Your task to perform on an android device: turn on showing notifications on the lock screen Image 0: 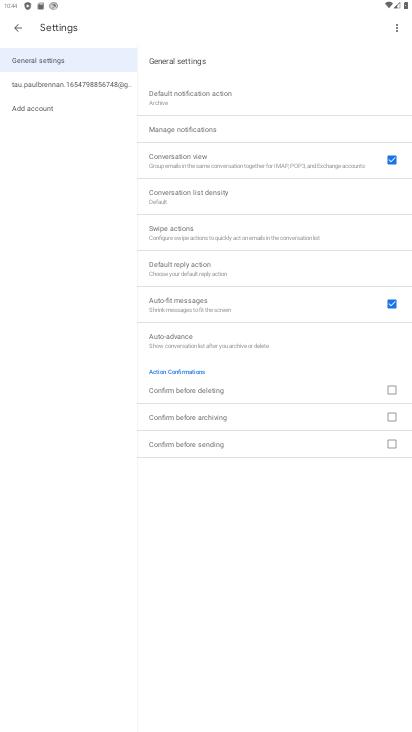
Step 0: press home button
Your task to perform on an android device: turn on showing notifications on the lock screen Image 1: 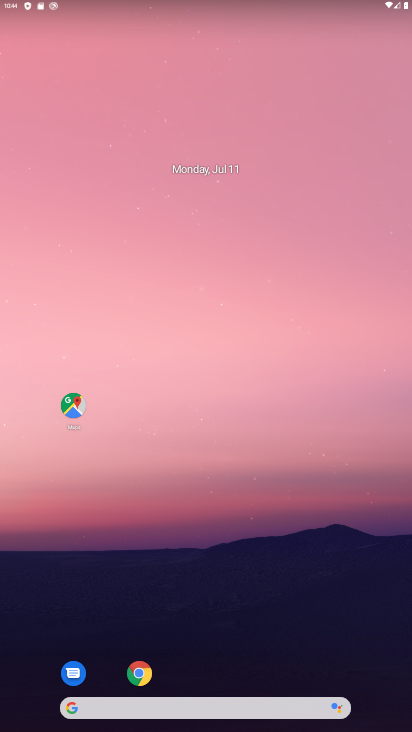
Step 1: drag from (192, 683) to (238, 268)
Your task to perform on an android device: turn on showing notifications on the lock screen Image 2: 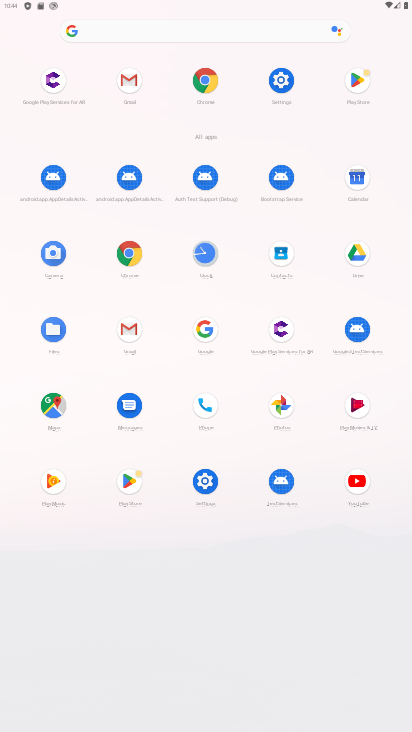
Step 2: click (205, 489)
Your task to perform on an android device: turn on showing notifications on the lock screen Image 3: 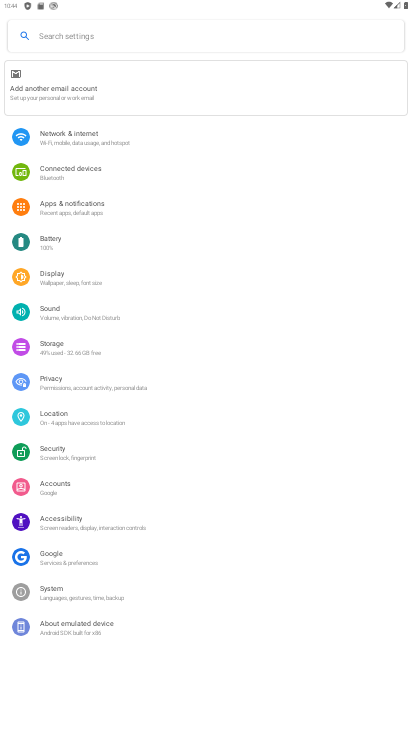
Step 3: click (108, 217)
Your task to perform on an android device: turn on showing notifications on the lock screen Image 4: 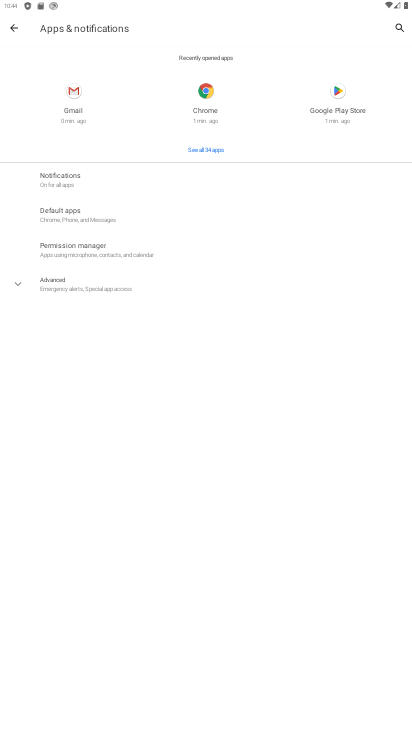
Step 4: click (105, 179)
Your task to perform on an android device: turn on showing notifications on the lock screen Image 5: 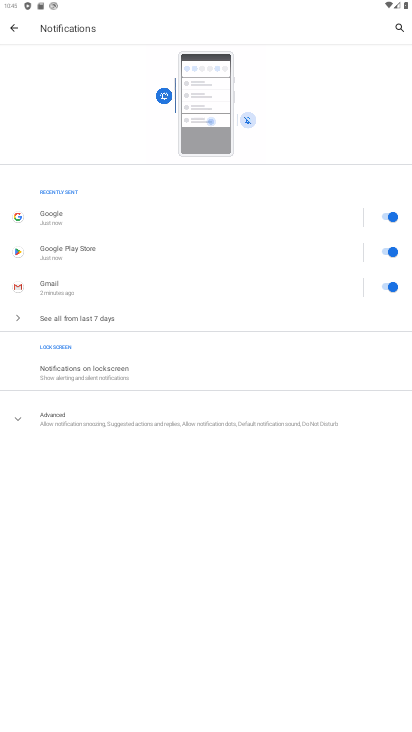
Step 5: click (115, 377)
Your task to perform on an android device: turn on showing notifications on the lock screen Image 6: 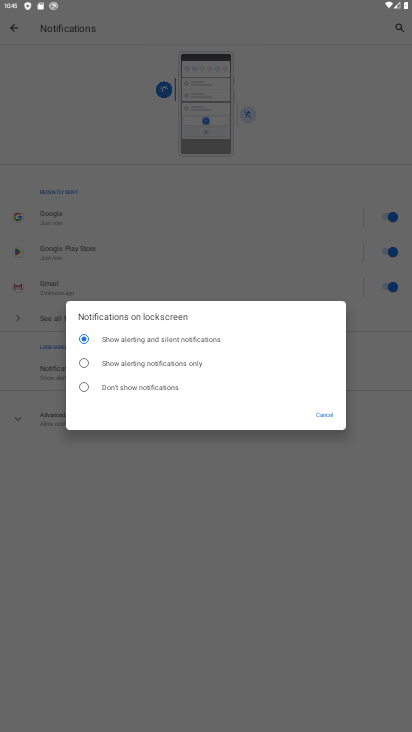
Step 6: task complete